Your task to perform on an android device: Open wifi settings Image 0: 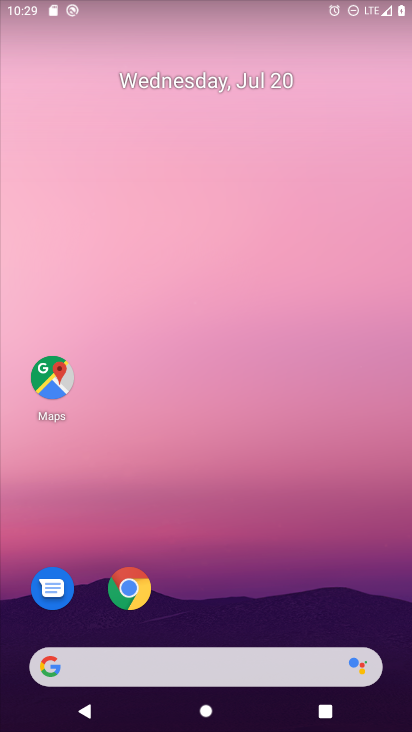
Step 0: drag from (238, 5) to (324, 512)
Your task to perform on an android device: Open wifi settings Image 1: 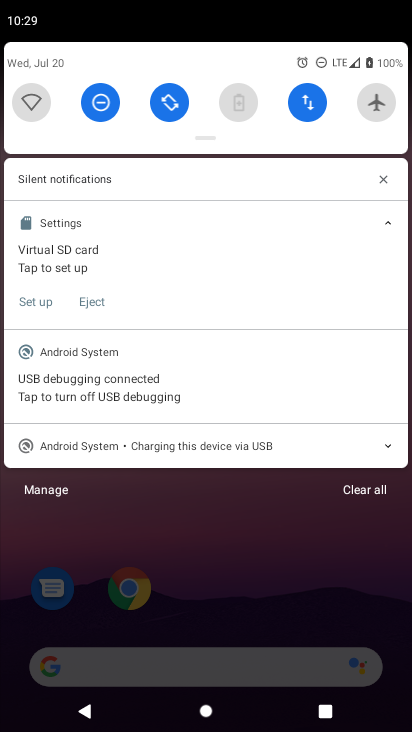
Step 1: click (22, 110)
Your task to perform on an android device: Open wifi settings Image 2: 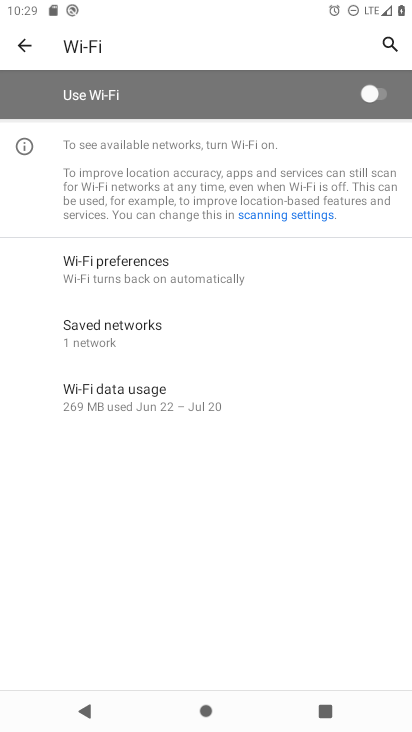
Step 2: task complete